Your task to perform on an android device: search for starred emails in the gmail app Image 0: 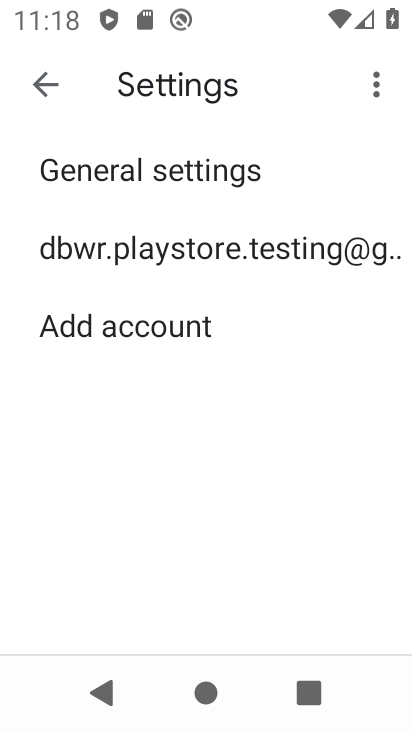
Step 0: press home button
Your task to perform on an android device: search for starred emails in the gmail app Image 1: 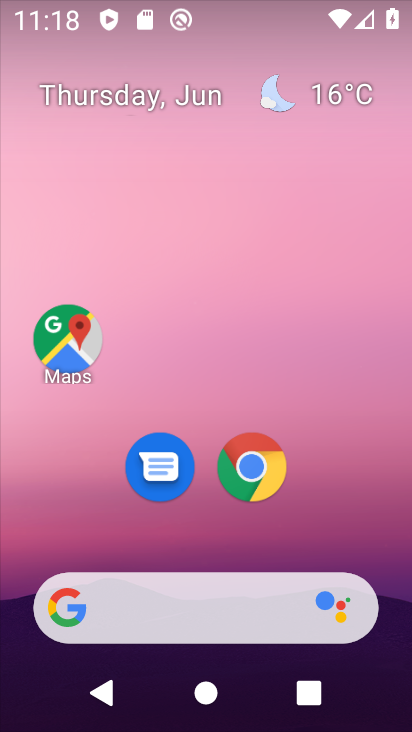
Step 1: drag from (399, 615) to (308, 221)
Your task to perform on an android device: search for starred emails in the gmail app Image 2: 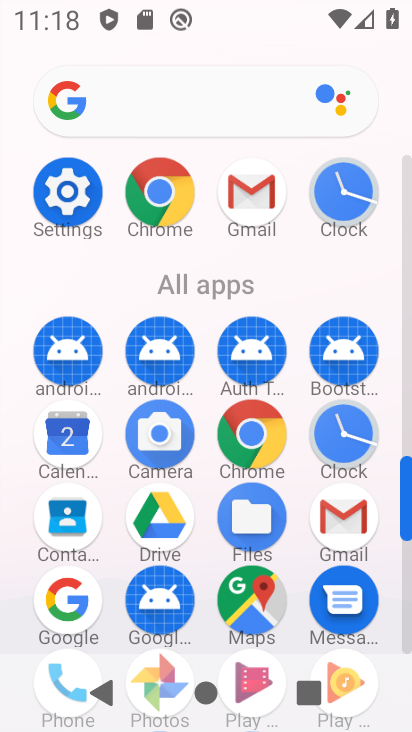
Step 2: click (406, 633)
Your task to perform on an android device: search for starred emails in the gmail app Image 3: 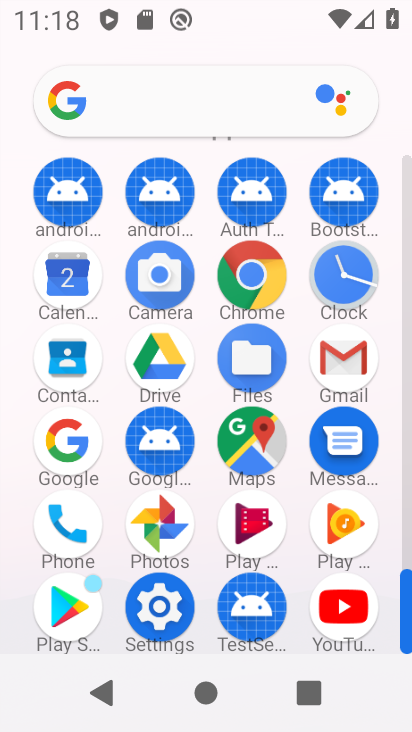
Step 3: click (342, 356)
Your task to perform on an android device: search for starred emails in the gmail app Image 4: 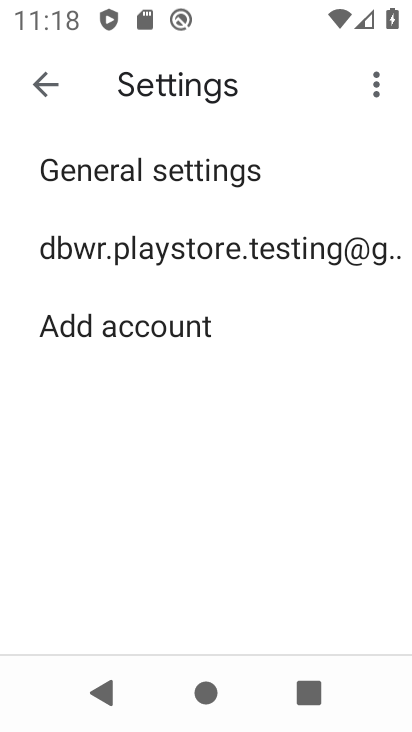
Step 4: press back button
Your task to perform on an android device: search for starred emails in the gmail app Image 5: 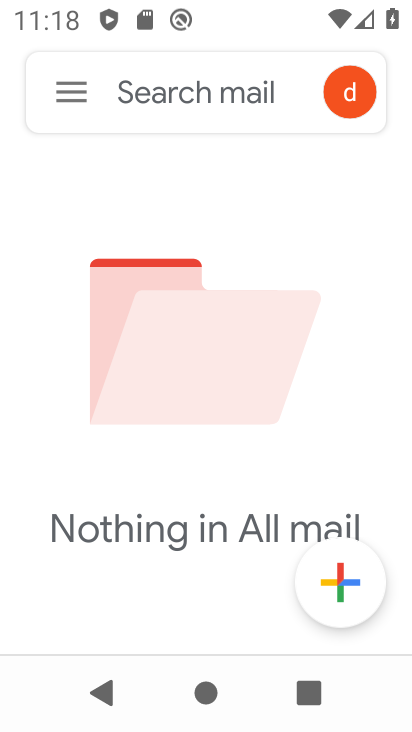
Step 5: click (65, 94)
Your task to perform on an android device: search for starred emails in the gmail app Image 6: 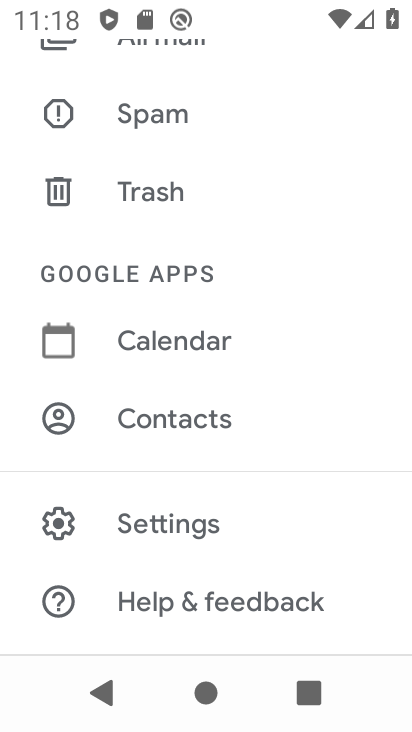
Step 6: drag from (262, 242) to (292, 604)
Your task to perform on an android device: search for starred emails in the gmail app Image 7: 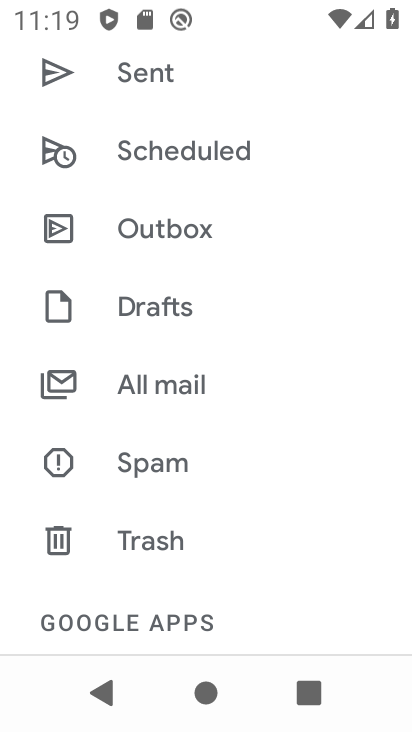
Step 7: drag from (306, 71) to (269, 446)
Your task to perform on an android device: search for starred emails in the gmail app Image 8: 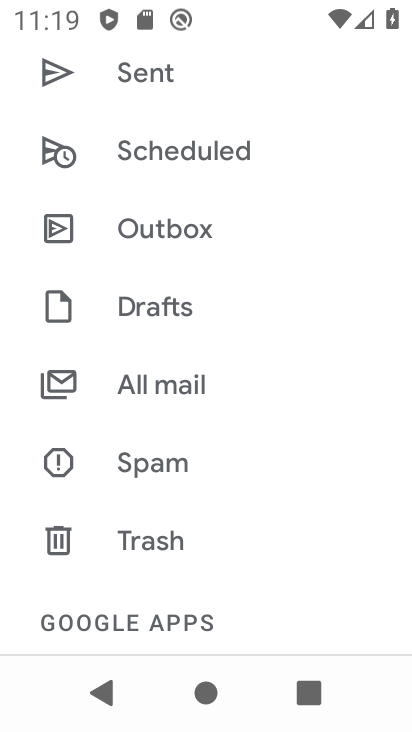
Step 8: drag from (277, 159) to (234, 500)
Your task to perform on an android device: search for starred emails in the gmail app Image 9: 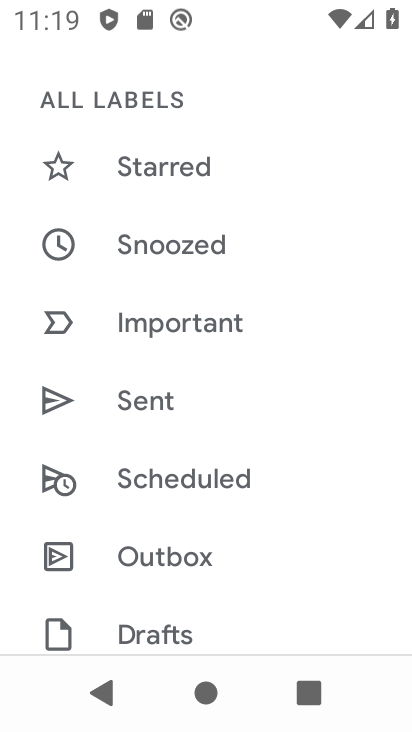
Step 9: click (171, 170)
Your task to perform on an android device: search for starred emails in the gmail app Image 10: 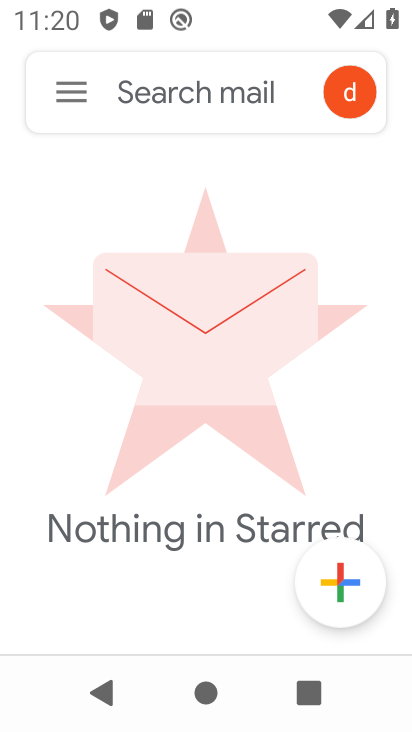
Step 10: task complete